Your task to perform on an android device: open device folders in google photos Image 0: 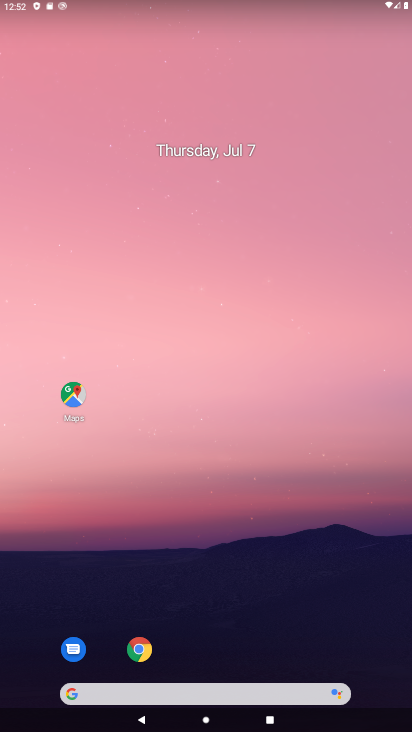
Step 0: drag from (309, 5) to (252, 0)
Your task to perform on an android device: open device folders in google photos Image 1: 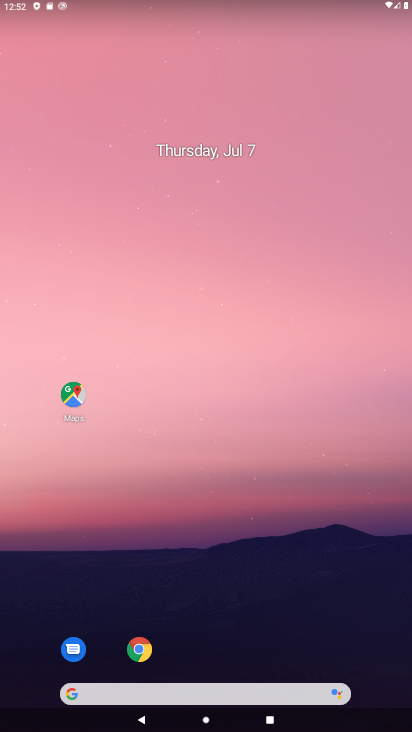
Step 1: drag from (225, 614) to (223, 8)
Your task to perform on an android device: open device folders in google photos Image 2: 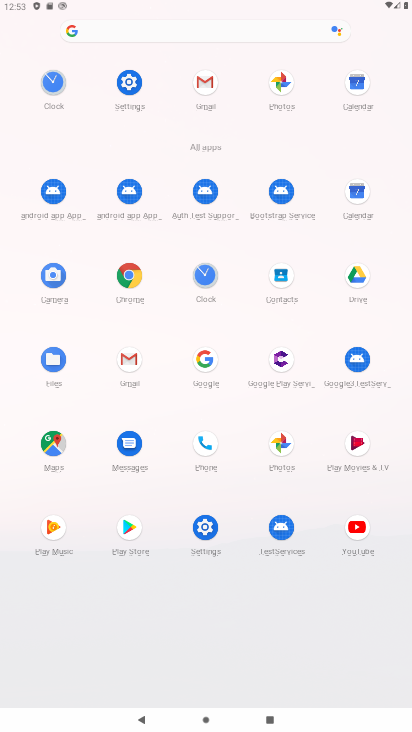
Step 2: click (285, 83)
Your task to perform on an android device: open device folders in google photos Image 3: 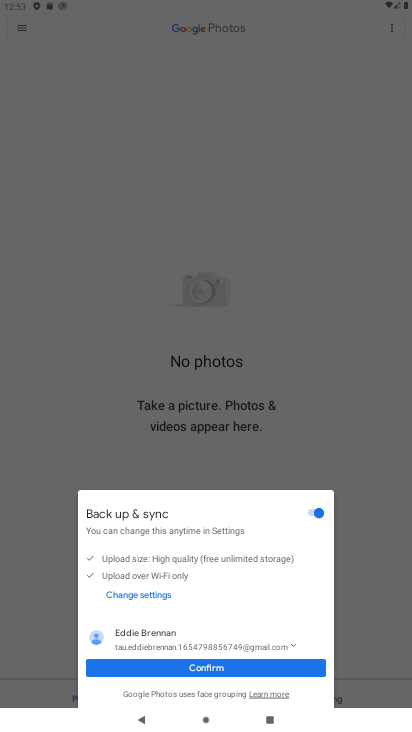
Step 3: click (230, 659)
Your task to perform on an android device: open device folders in google photos Image 4: 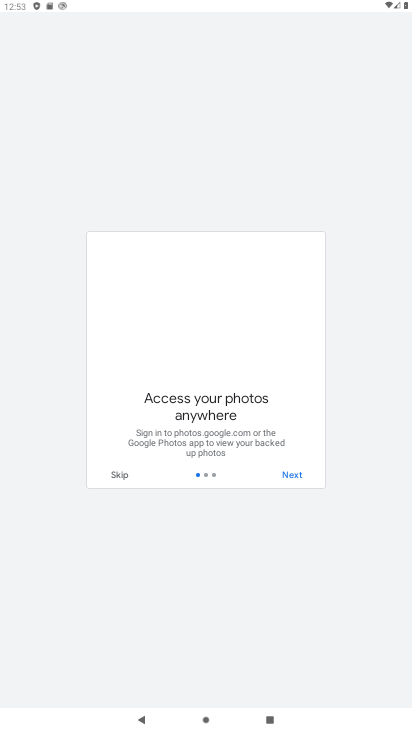
Step 4: click (122, 474)
Your task to perform on an android device: open device folders in google photos Image 5: 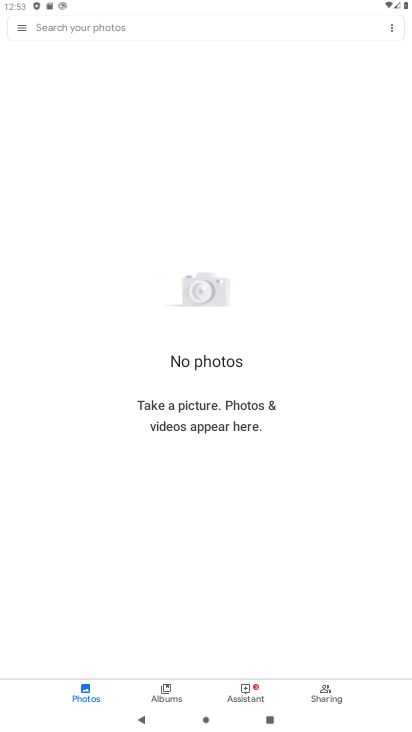
Step 5: click (138, 19)
Your task to perform on an android device: open device folders in google photos Image 6: 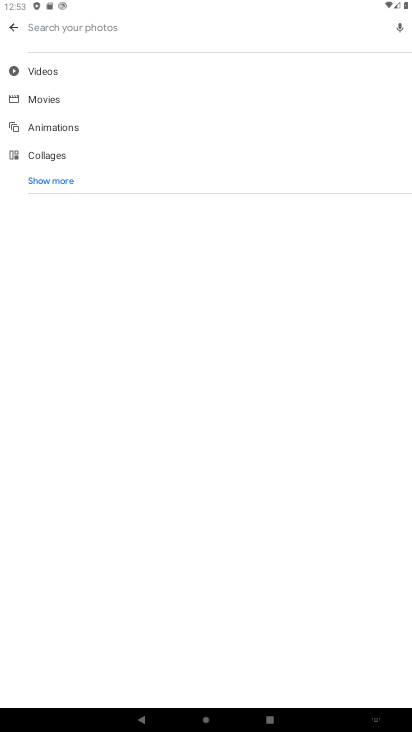
Step 6: type "device folders"
Your task to perform on an android device: open device folders in google photos Image 7: 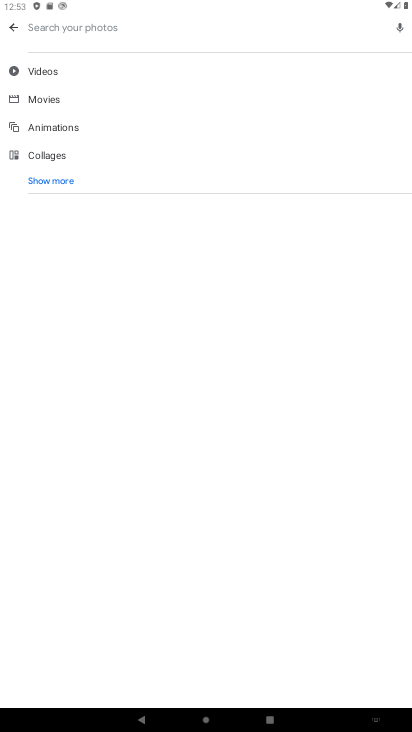
Step 7: click (66, 21)
Your task to perform on an android device: open device folders in google photos Image 8: 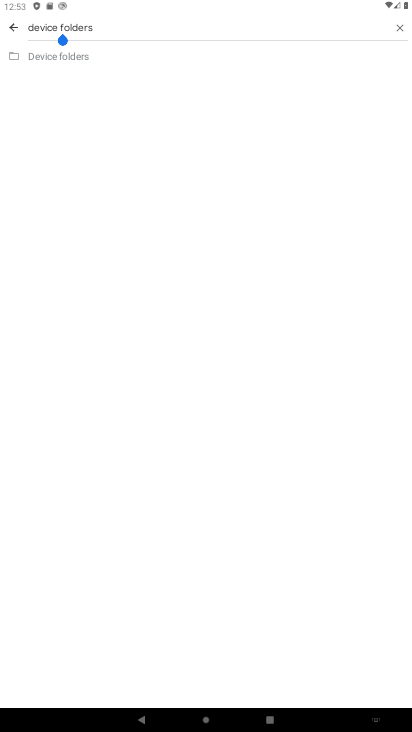
Step 8: click (63, 59)
Your task to perform on an android device: open device folders in google photos Image 9: 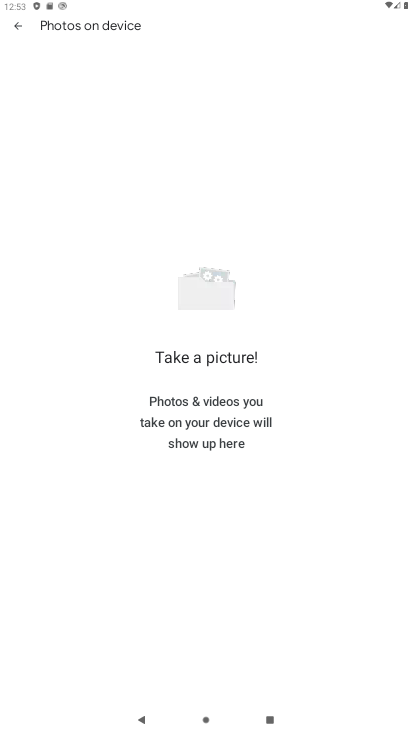
Step 9: task complete